Your task to perform on an android device: Search for Mexican restaurants on Maps Image 0: 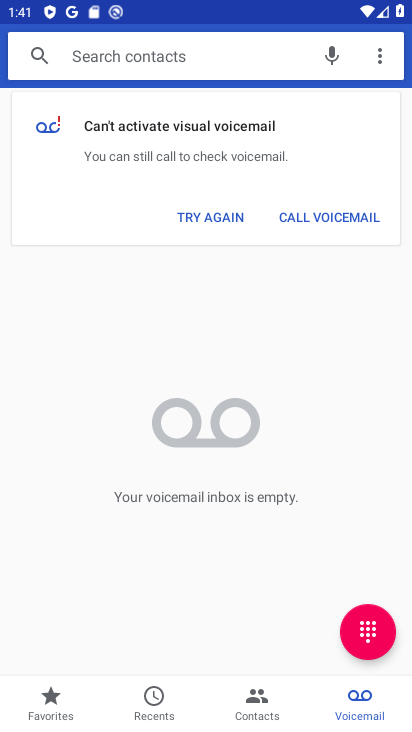
Step 0: press home button
Your task to perform on an android device: Search for Mexican restaurants on Maps Image 1: 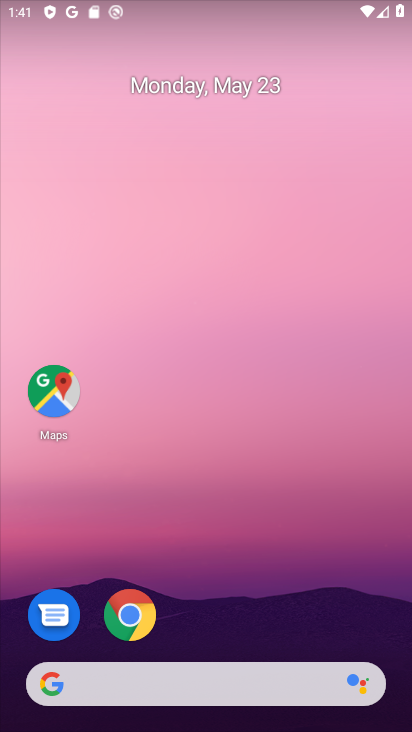
Step 1: drag from (198, 646) to (192, 101)
Your task to perform on an android device: Search for Mexican restaurants on Maps Image 2: 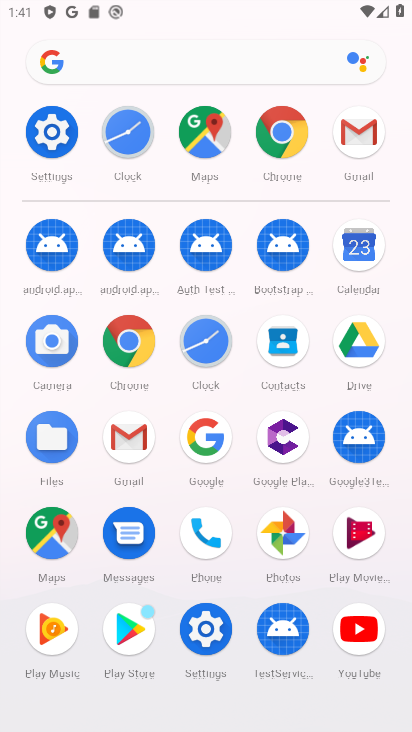
Step 2: click (73, 551)
Your task to perform on an android device: Search for Mexican restaurants on Maps Image 3: 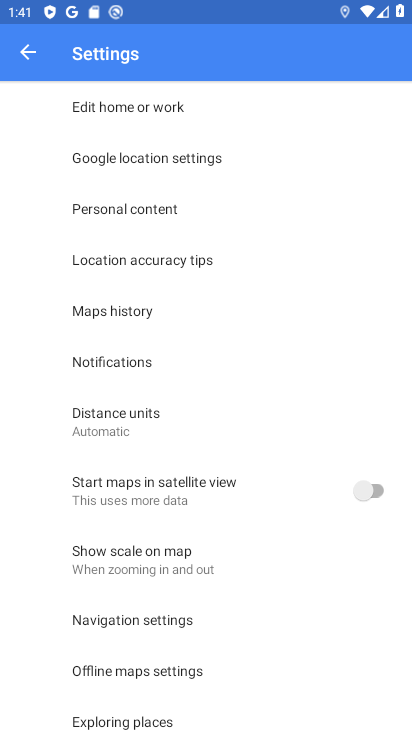
Step 3: click (31, 37)
Your task to perform on an android device: Search for Mexican restaurants on Maps Image 4: 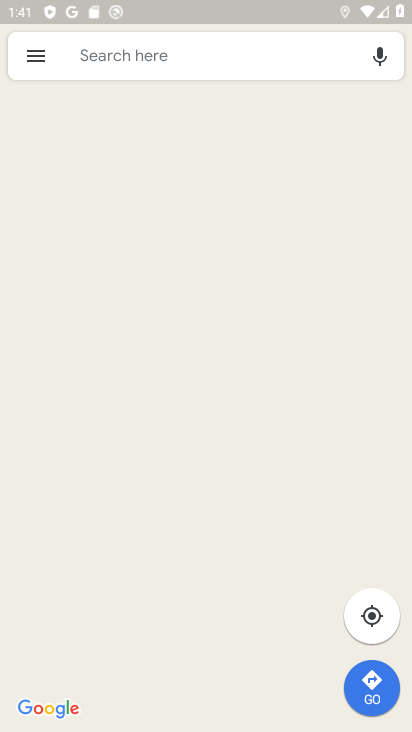
Step 4: click (139, 47)
Your task to perform on an android device: Search for Mexican restaurants on Maps Image 5: 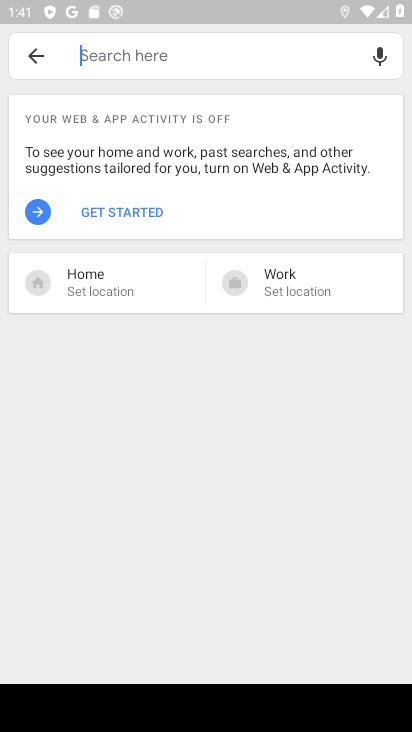
Step 5: click (101, 206)
Your task to perform on an android device: Search for Mexican restaurants on Maps Image 6: 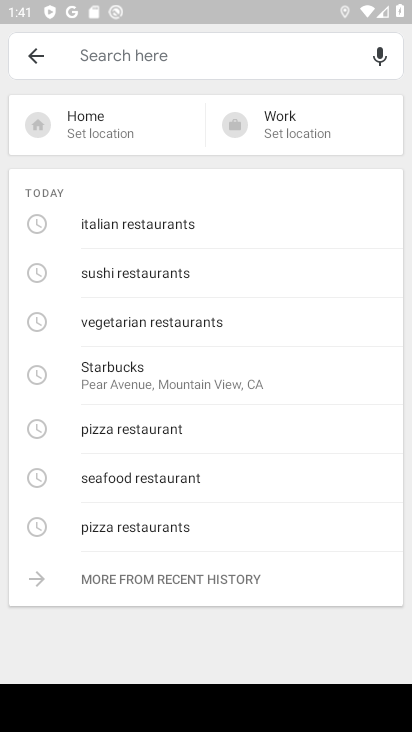
Step 6: type "mexican rest"
Your task to perform on an android device: Search for Mexican restaurants on Maps Image 7: 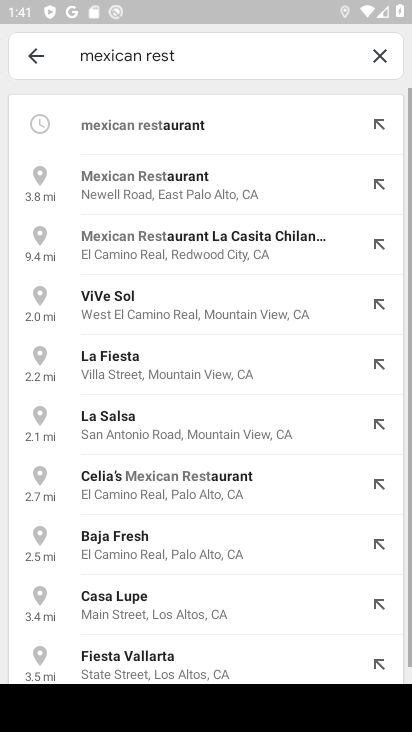
Step 7: click (181, 131)
Your task to perform on an android device: Search for Mexican restaurants on Maps Image 8: 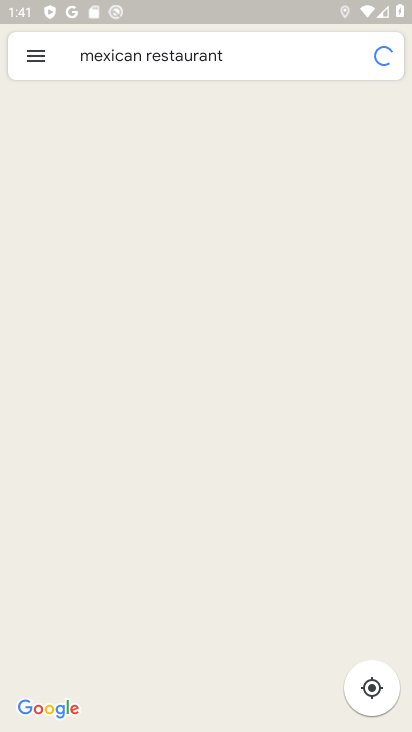
Step 8: task complete